Your task to perform on an android device: Show me the alarms in the clock app Image 0: 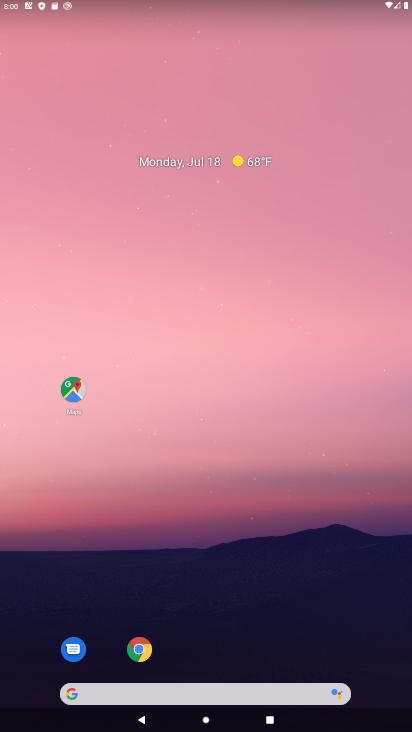
Step 0: drag from (231, 727) to (316, 196)
Your task to perform on an android device: Show me the alarms in the clock app Image 1: 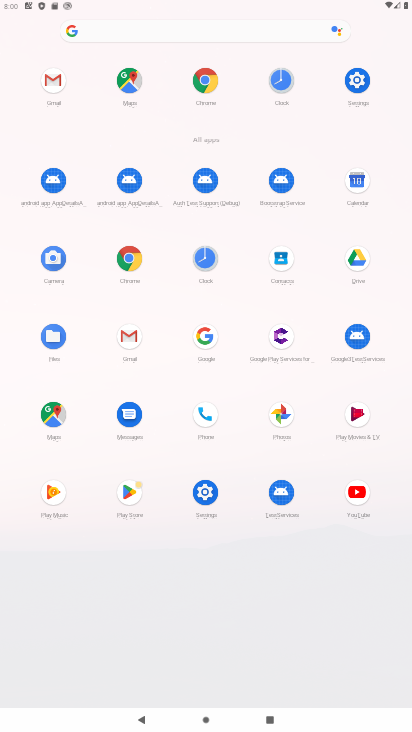
Step 1: click (279, 84)
Your task to perform on an android device: Show me the alarms in the clock app Image 2: 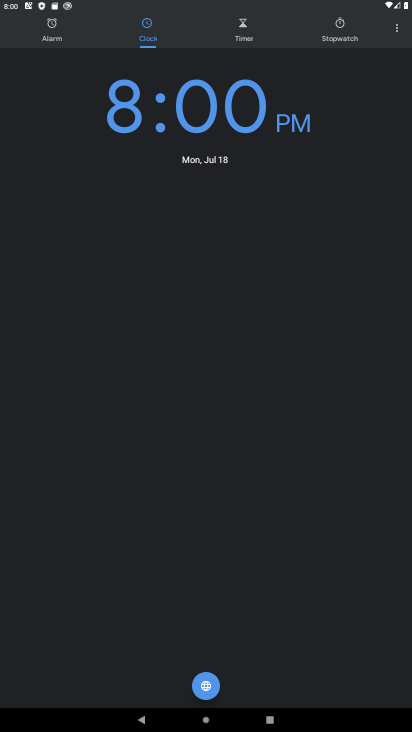
Step 2: click (47, 20)
Your task to perform on an android device: Show me the alarms in the clock app Image 3: 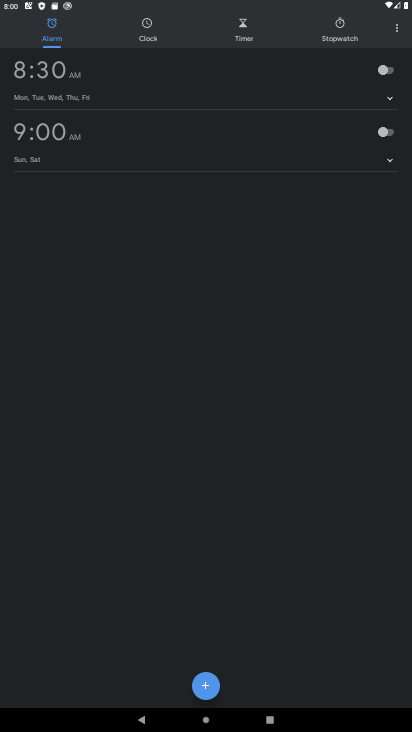
Step 3: task complete